Your task to perform on an android device: Open Wikipedia Image 0: 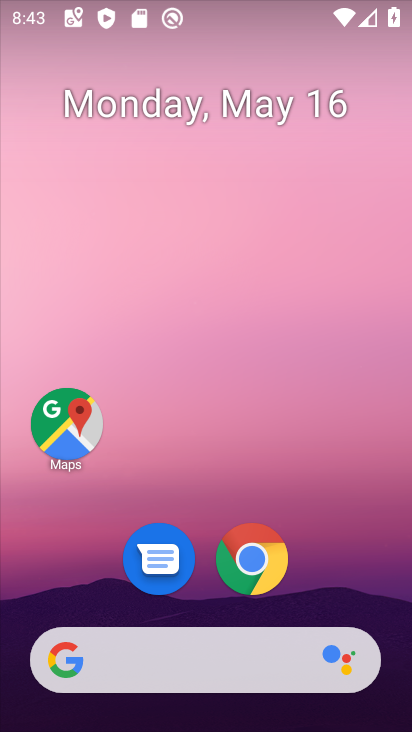
Step 0: click (229, 556)
Your task to perform on an android device: Open Wikipedia Image 1: 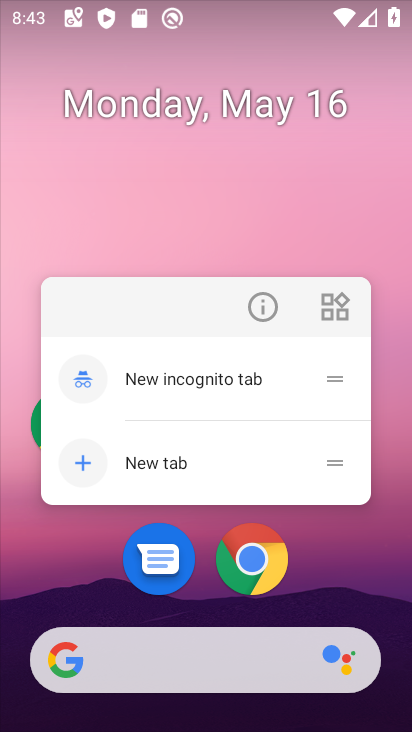
Step 1: click (229, 556)
Your task to perform on an android device: Open Wikipedia Image 2: 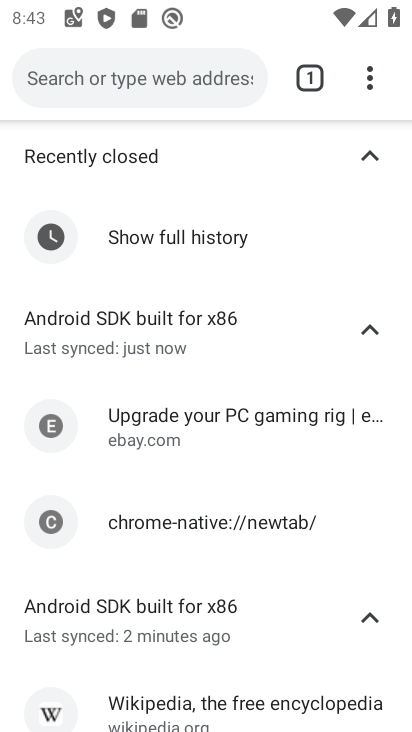
Step 2: click (164, 85)
Your task to perform on an android device: Open Wikipedia Image 3: 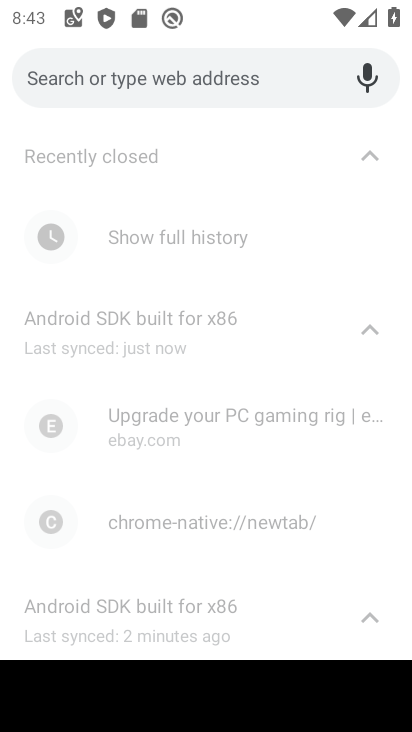
Step 3: type "wikipedia"
Your task to perform on an android device: Open Wikipedia Image 4: 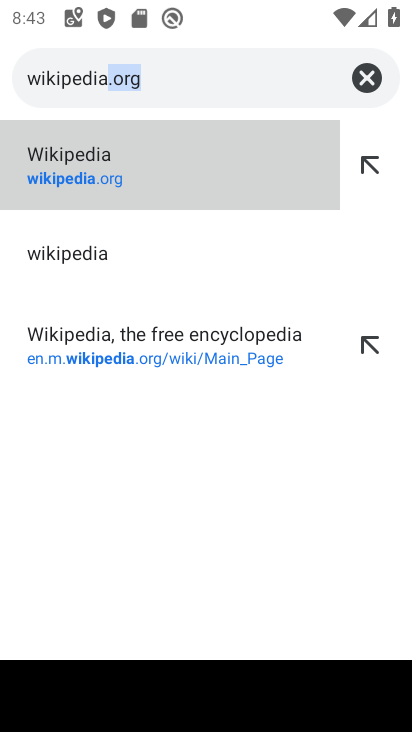
Step 4: click (201, 177)
Your task to perform on an android device: Open Wikipedia Image 5: 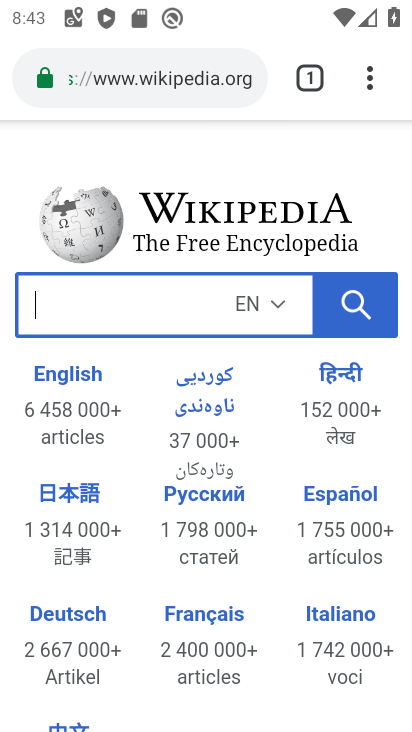
Step 5: task complete